Your task to perform on an android device: find which apps use the phone's location Image 0: 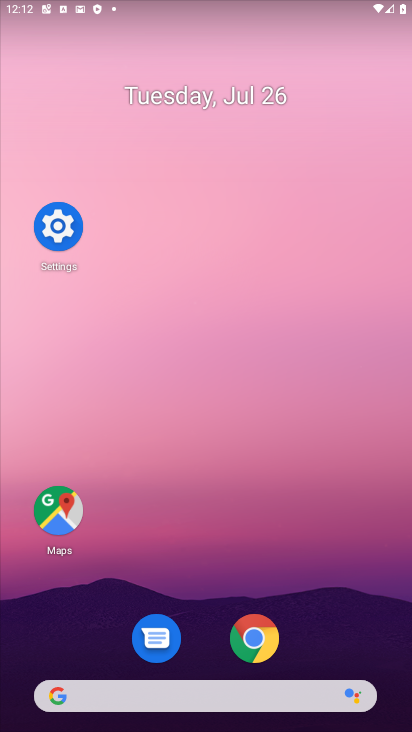
Step 0: click (70, 225)
Your task to perform on an android device: find which apps use the phone's location Image 1: 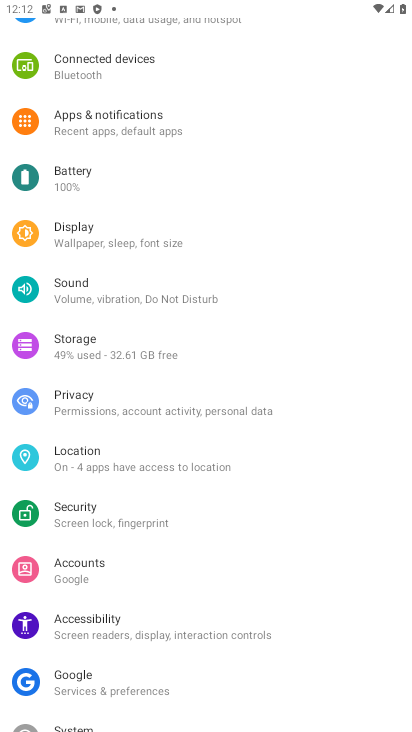
Step 1: click (162, 458)
Your task to perform on an android device: find which apps use the phone's location Image 2: 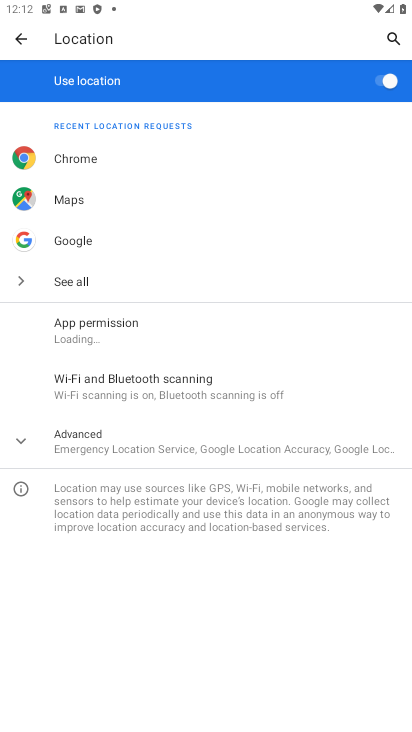
Step 2: task complete